Your task to perform on an android device: turn off airplane mode Image 0: 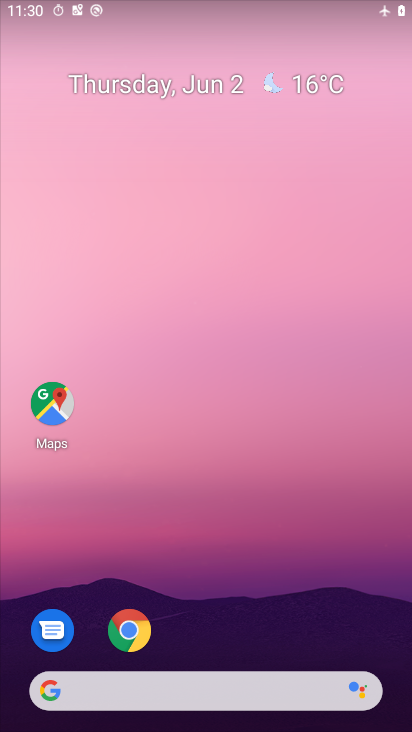
Step 0: drag from (216, 647) to (239, 253)
Your task to perform on an android device: turn off airplane mode Image 1: 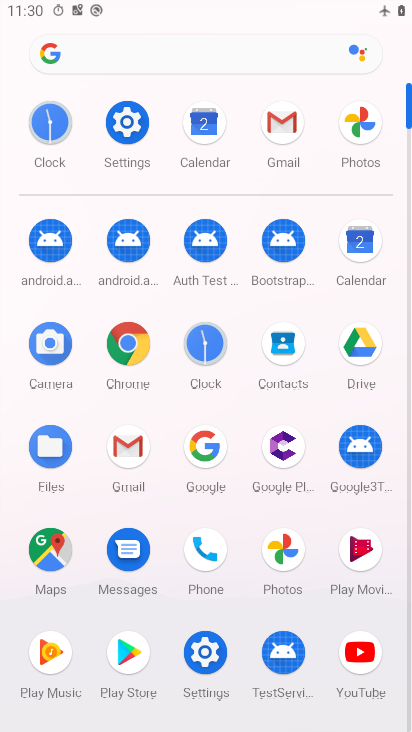
Step 1: click (136, 145)
Your task to perform on an android device: turn off airplane mode Image 2: 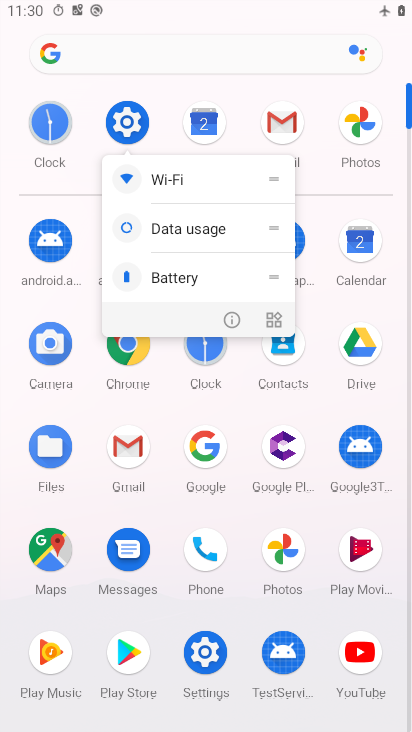
Step 2: click (126, 114)
Your task to perform on an android device: turn off airplane mode Image 3: 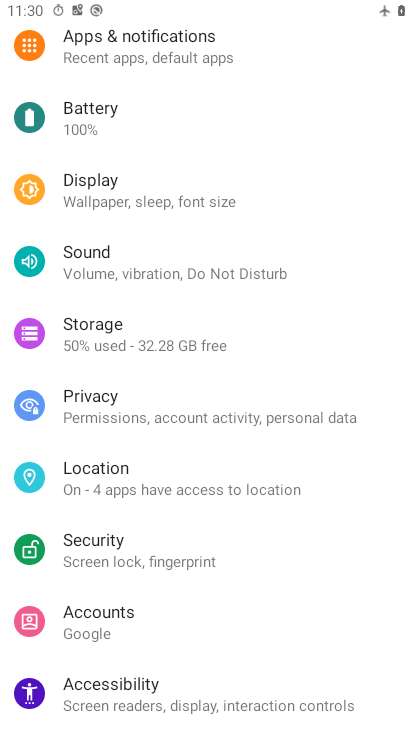
Step 3: drag from (200, 176) to (180, 476)
Your task to perform on an android device: turn off airplane mode Image 4: 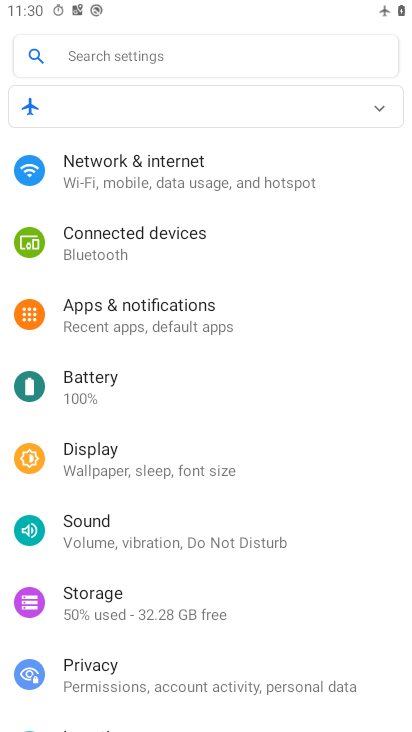
Step 4: click (181, 182)
Your task to perform on an android device: turn off airplane mode Image 5: 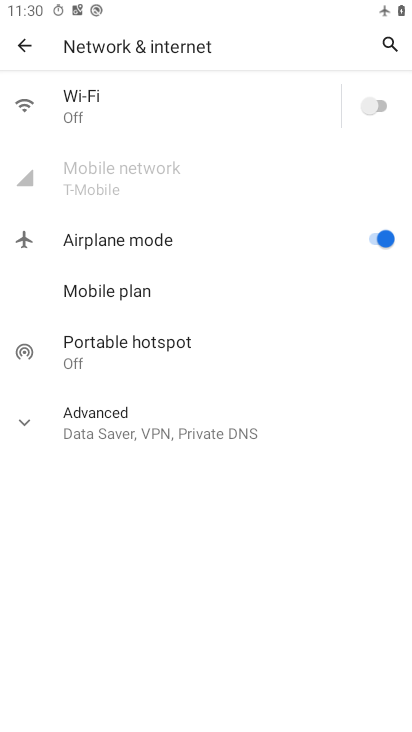
Step 5: click (372, 234)
Your task to perform on an android device: turn off airplane mode Image 6: 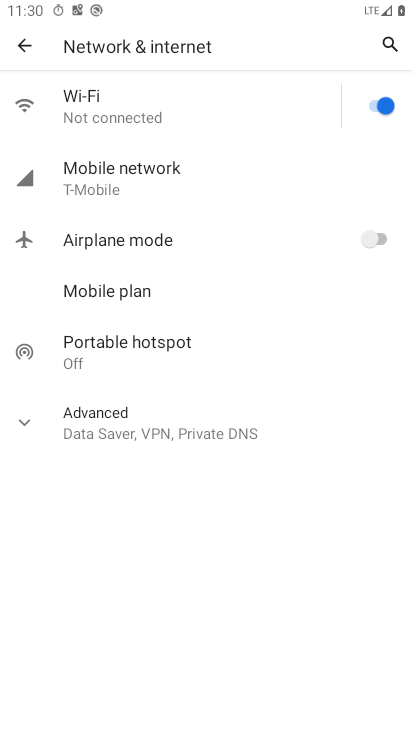
Step 6: task complete